Your task to perform on an android device: add a contact in the contacts app Image 0: 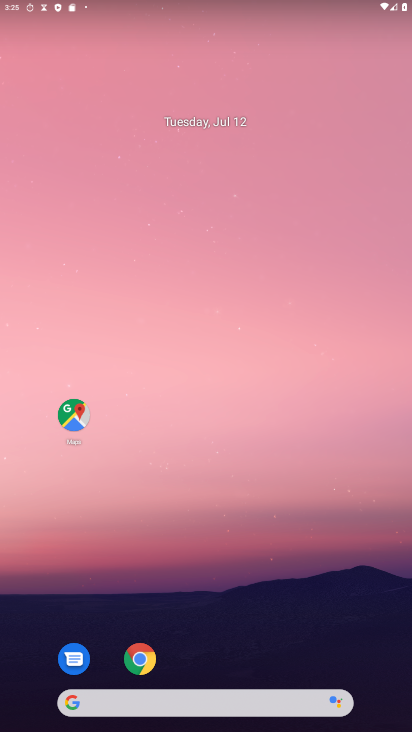
Step 0: drag from (301, 632) to (248, 123)
Your task to perform on an android device: add a contact in the contacts app Image 1: 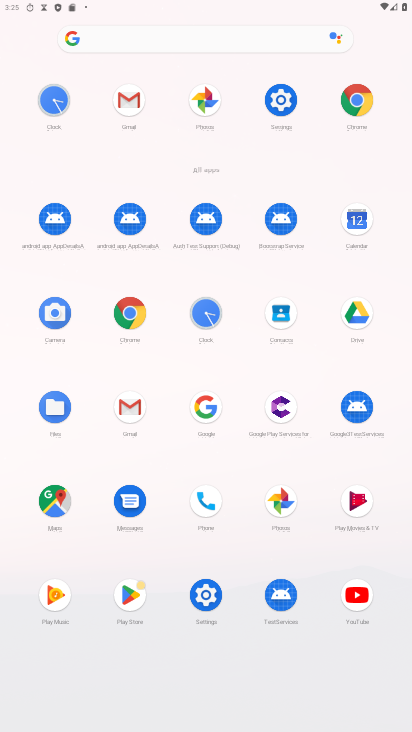
Step 1: click (286, 315)
Your task to perform on an android device: add a contact in the contacts app Image 2: 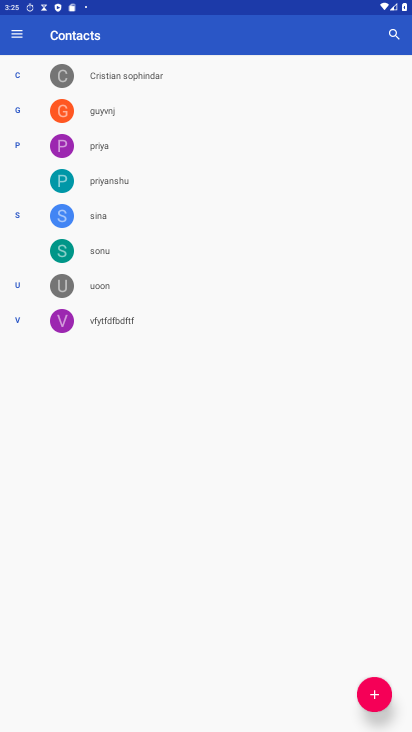
Step 2: click (371, 706)
Your task to perform on an android device: add a contact in the contacts app Image 3: 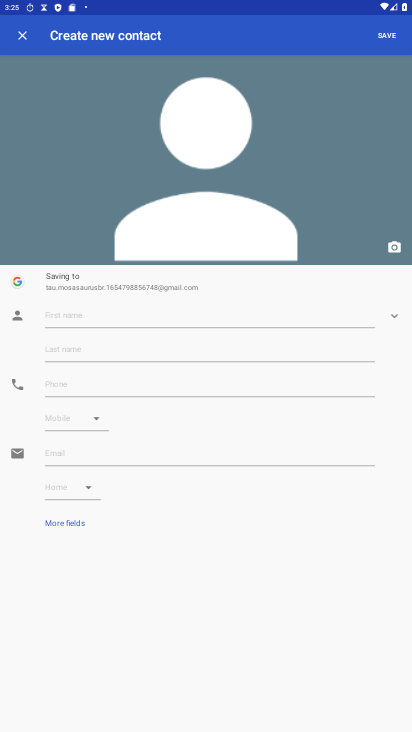
Step 3: click (274, 312)
Your task to perform on an android device: add a contact in the contacts app Image 4: 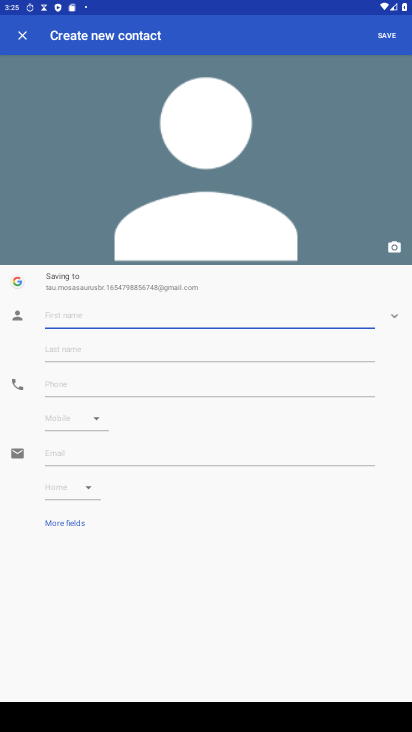
Step 4: type "jkjkbjk"
Your task to perform on an android device: add a contact in the contacts app Image 5: 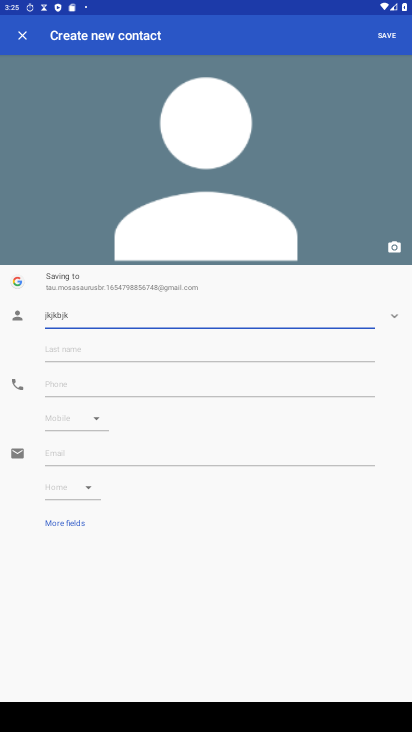
Step 5: click (173, 387)
Your task to perform on an android device: add a contact in the contacts app Image 6: 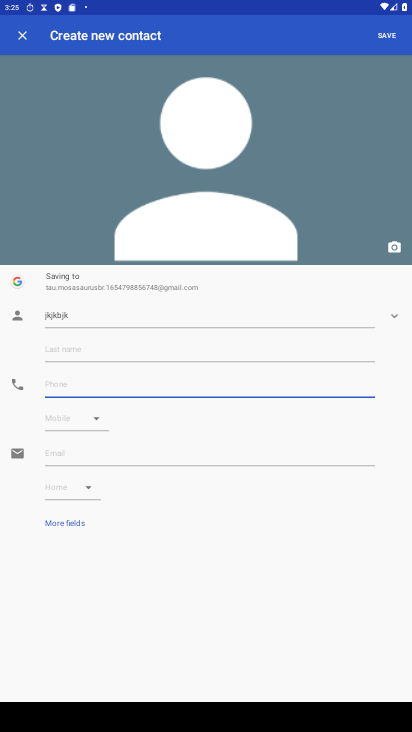
Step 6: type "8798798"
Your task to perform on an android device: add a contact in the contacts app Image 7: 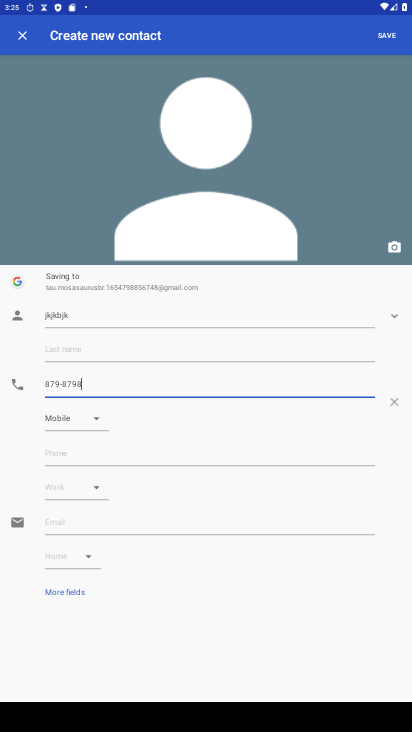
Step 7: click (386, 36)
Your task to perform on an android device: add a contact in the contacts app Image 8: 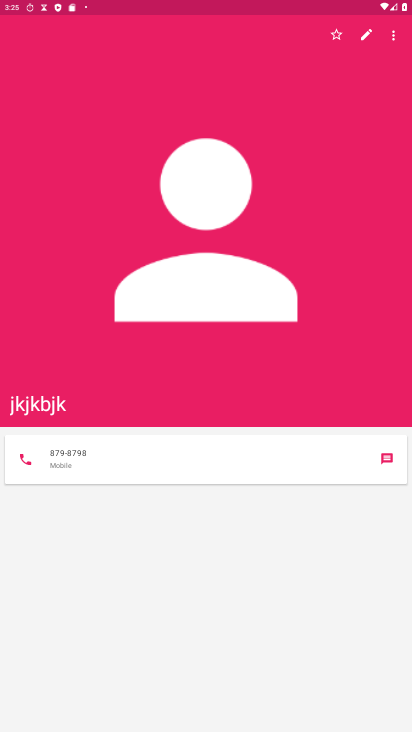
Step 8: task complete